Your task to perform on an android device: Check the news Image 0: 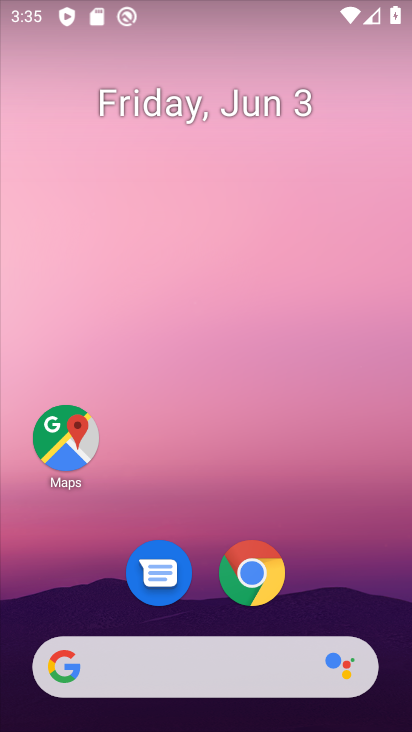
Step 0: drag from (0, 283) to (376, 262)
Your task to perform on an android device: Check the news Image 1: 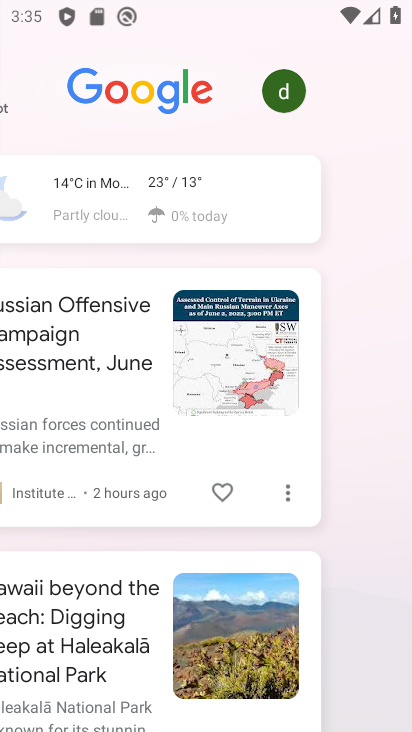
Step 1: task complete